Your task to perform on an android device: Open the web browser Image 0: 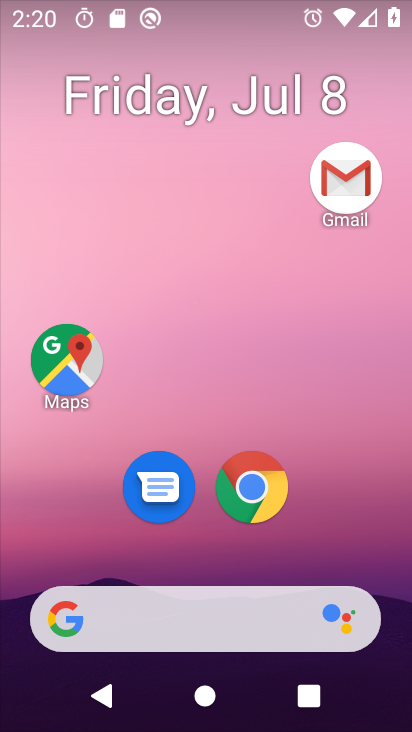
Step 0: drag from (341, 554) to (386, 152)
Your task to perform on an android device: Open the web browser Image 1: 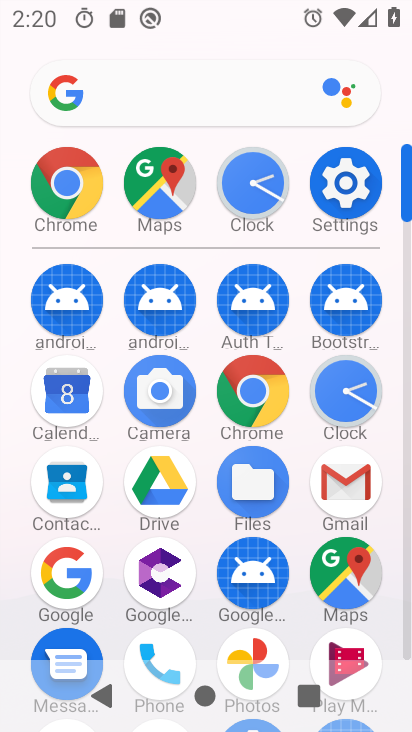
Step 1: click (264, 398)
Your task to perform on an android device: Open the web browser Image 2: 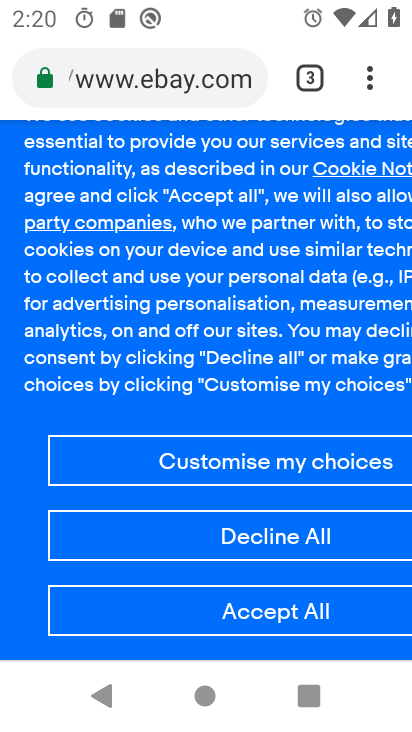
Step 2: click (173, 81)
Your task to perform on an android device: Open the web browser Image 3: 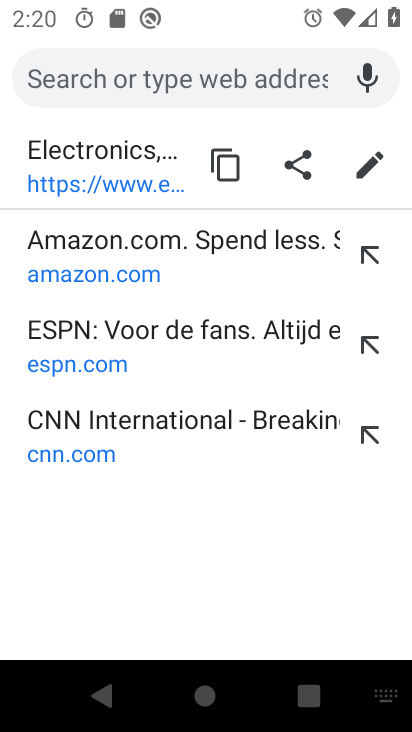
Step 3: task complete